Your task to perform on an android device: Go to Google maps Image 0: 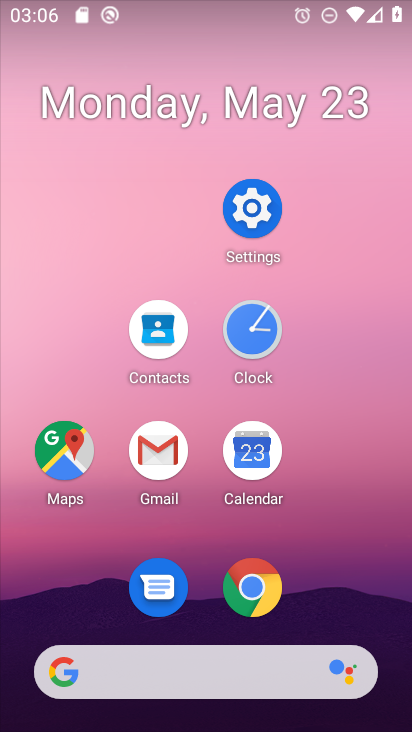
Step 0: click (60, 463)
Your task to perform on an android device: Go to Google maps Image 1: 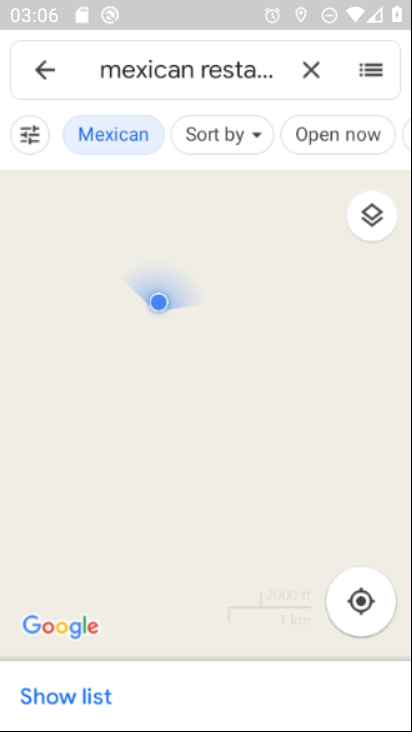
Step 1: task complete